Your task to perform on an android device: turn off priority inbox in the gmail app Image 0: 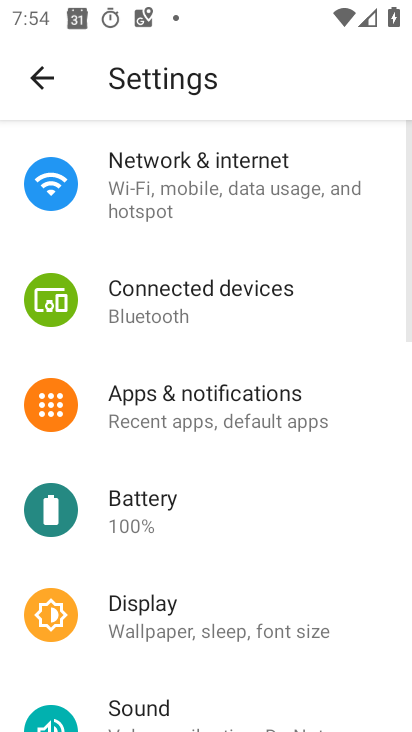
Step 0: press home button
Your task to perform on an android device: turn off priority inbox in the gmail app Image 1: 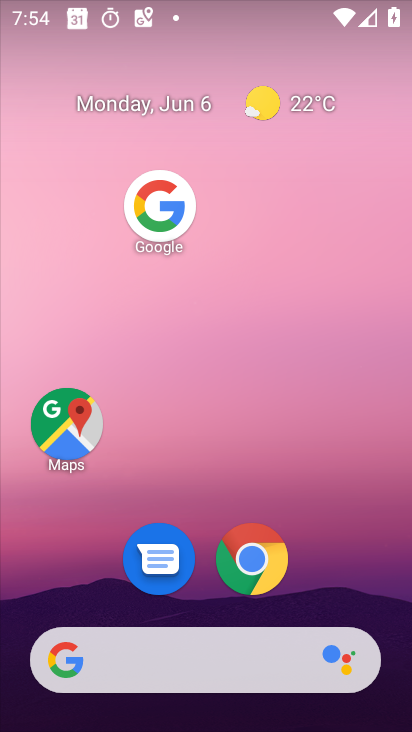
Step 1: drag from (88, 535) to (72, 215)
Your task to perform on an android device: turn off priority inbox in the gmail app Image 2: 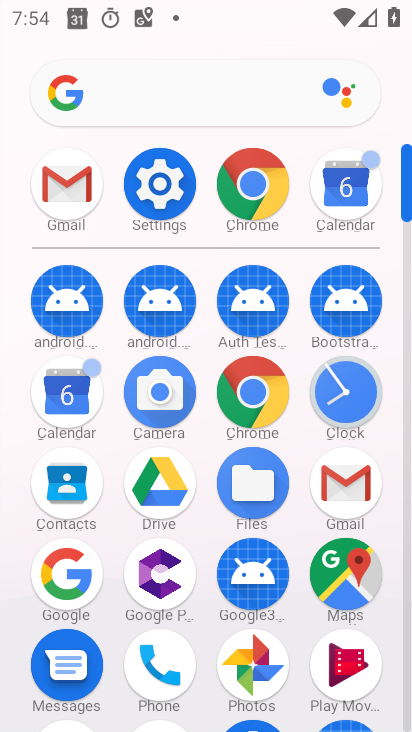
Step 2: click (348, 497)
Your task to perform on an android device: turn off priority inbox in the gmail app Image 3: 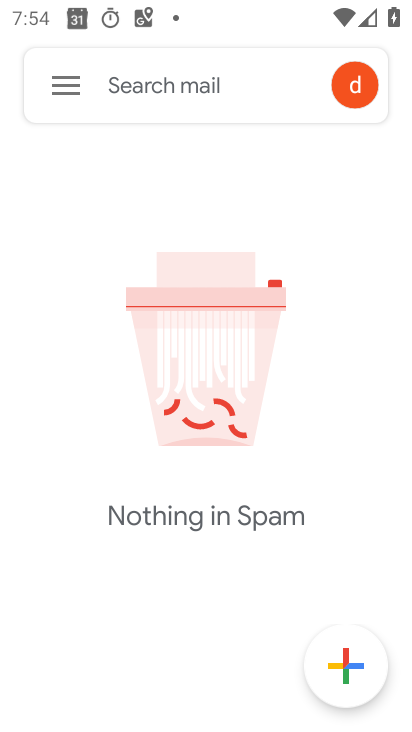
Step 3: click (60, 67)
Your task to perform on an android device: turn off priority inbox in the gmail app Image 4: 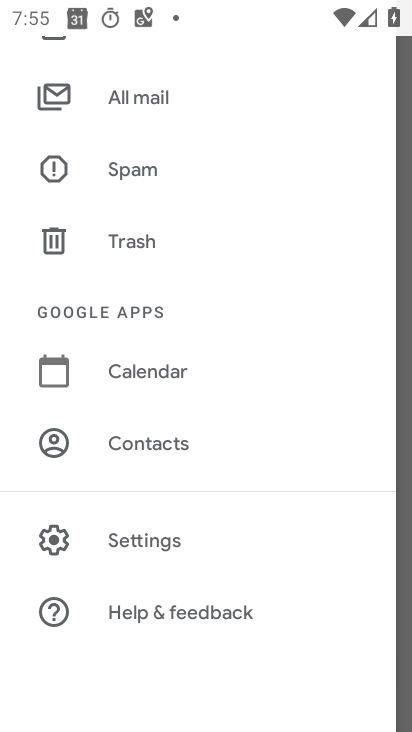
Step 4: click (184, 545)
Your task to perform on an android device: turn off priority inbox in the gmail app Image 5: 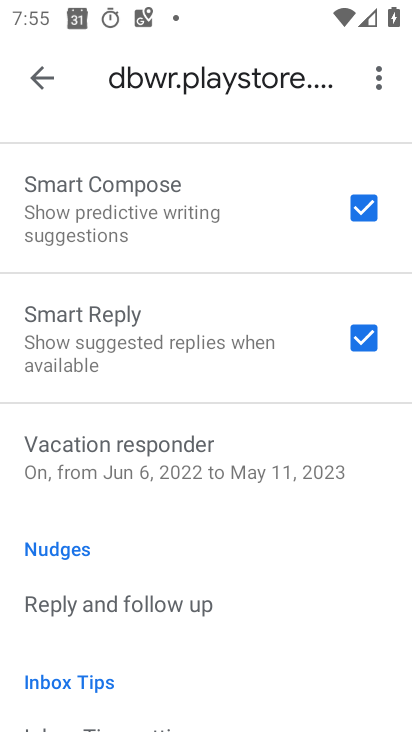
Step 5: drag from (66, 210) to (197, 555)
Your task to perform on an android device: turn off priority inbox in the gmail app Image 6: 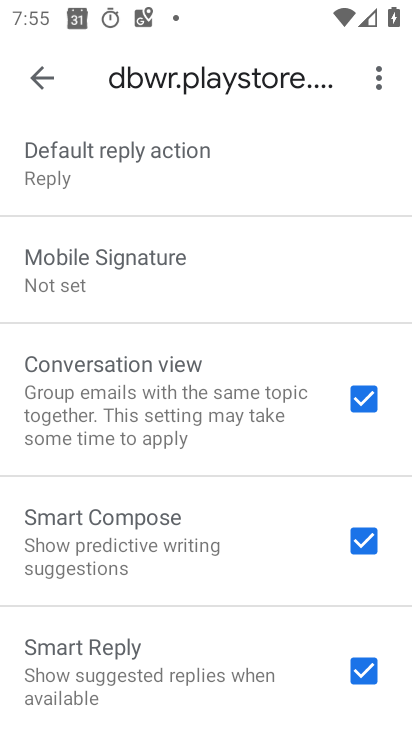
Step 6: drag from (86, 351) to (170, 590)
Your task to perform on an android device: turn off priority inbox in the gmail app Image 7: 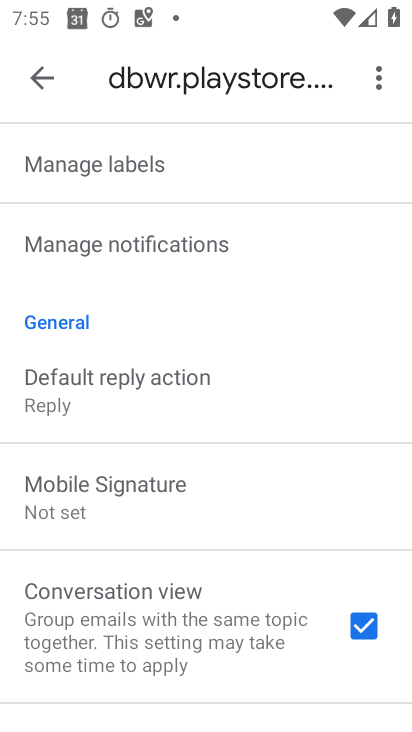
Step 7: drag from (89, 377) to (144, 579)
Your task to perform on an android device: turn off priority inbox in the gmail app Image 8: 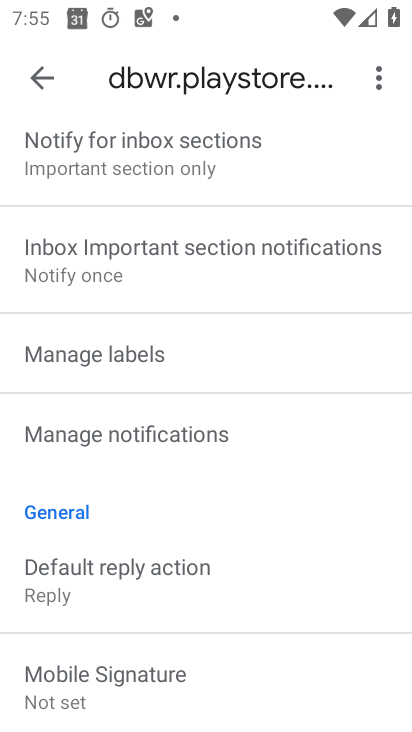
Step 8: drag from (65, 258) to (163, 628)
Your task to perform on an android device: turn off priority inbox in the gmail app Image 9: 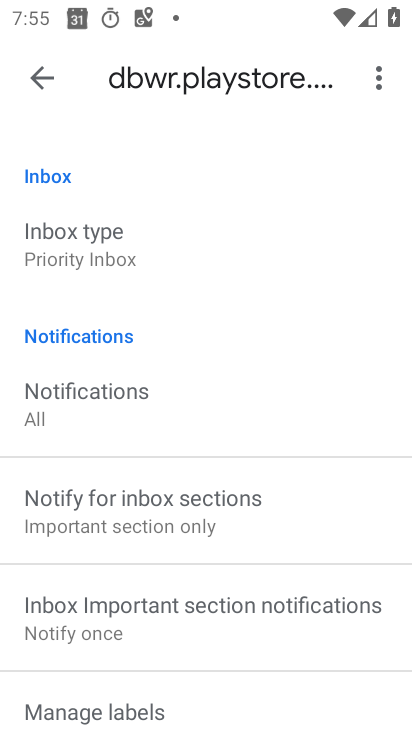
Step 9: click (27, 249)
Your task to perform on an android device: turn off priority inbox in the gmail app Image 10: 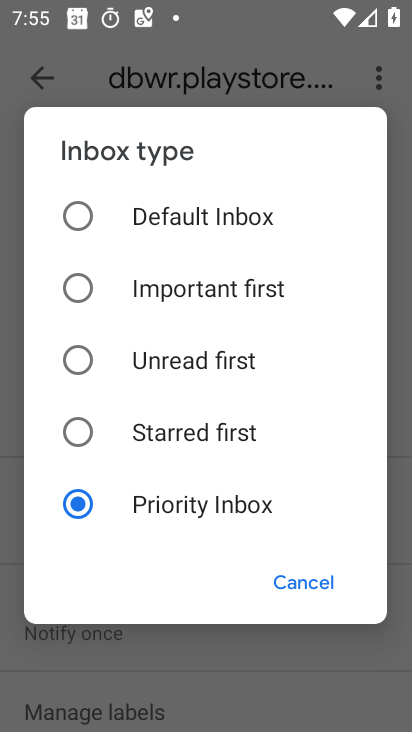
Step 10: click (55, 218)
Your task to perform on an android device: turn off priority inbox in the gmail app Image 11: 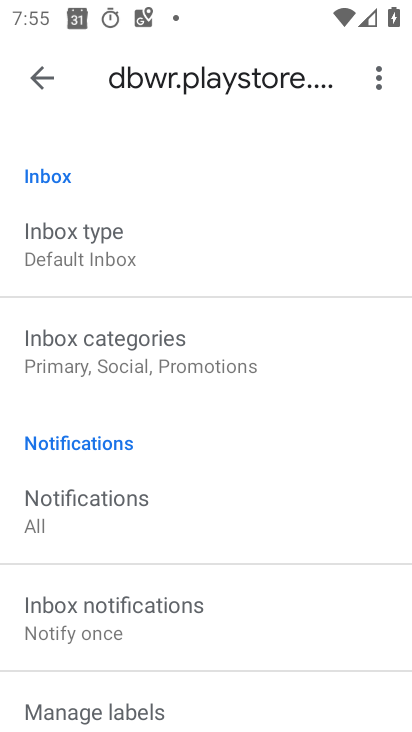
Step 11: task complete